Your task to perform on an android device: change notification settings in the gmail app Image 0: 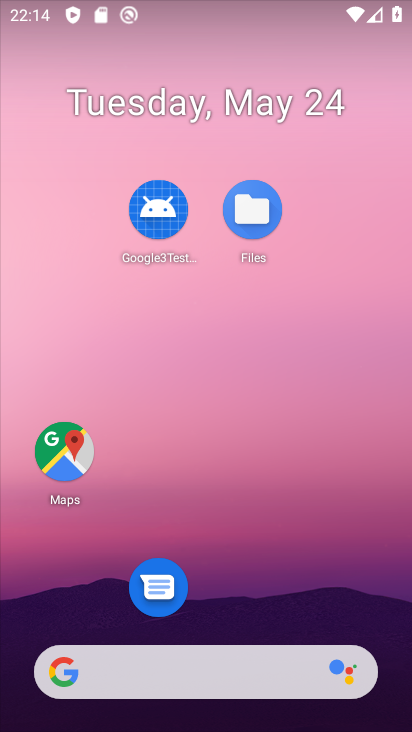
Step 0: drag from (228, 641) to (247, 73)
Your task to perform on an android device: change notification settings in the gmail app Image 1: 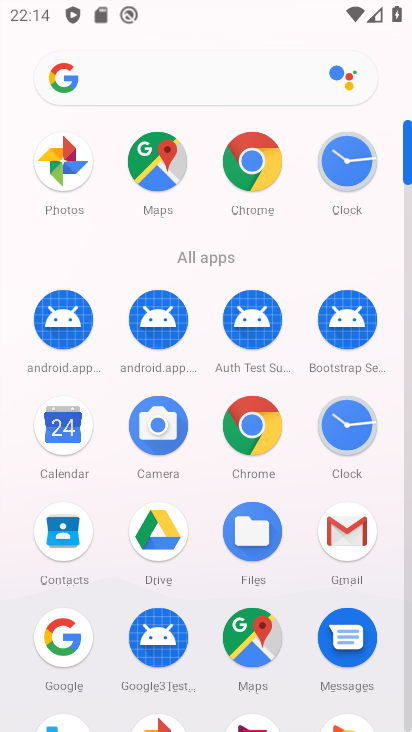
Step 1: click (352, 523)
Your task to perform on an android device: change notification settings in the gmail app Image 2: 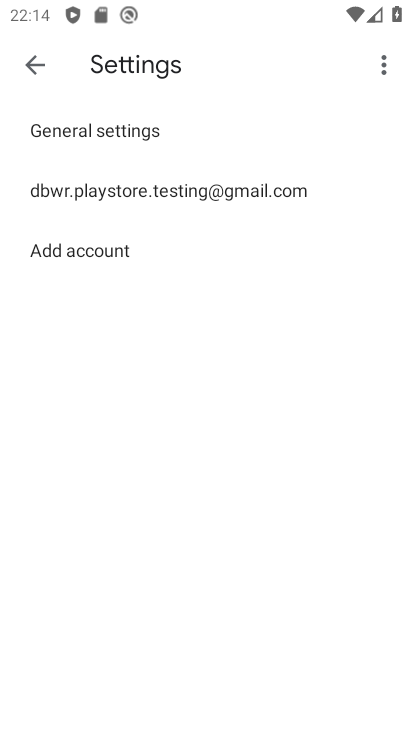
Step 2: click (52, 140)
Your task to perform on an android device: change notification settings in the gmail app Image 3: 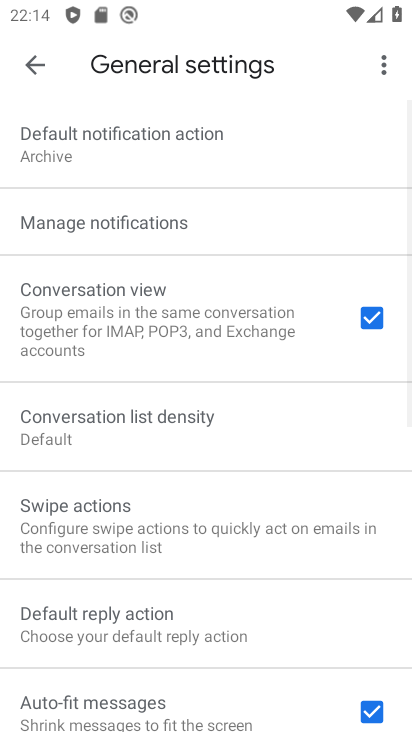
Step 3: click (83, 208)
Your task to perform on an android device: change notification settings in the gmail app Image 4: 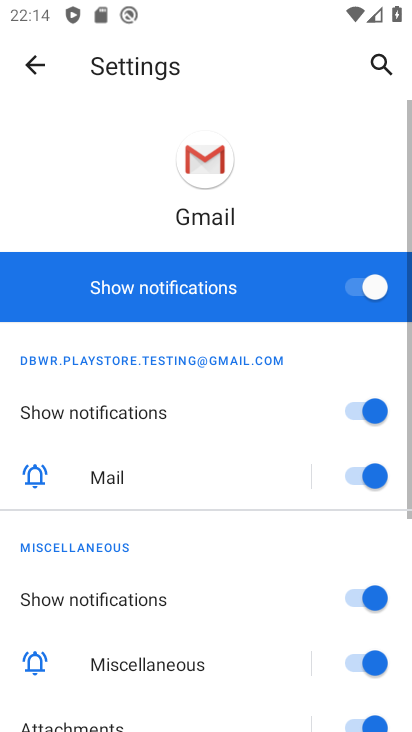
Step 4: click (351, 282)
Your task to perform on an android device: change notification settings in the gmail app Image 5: 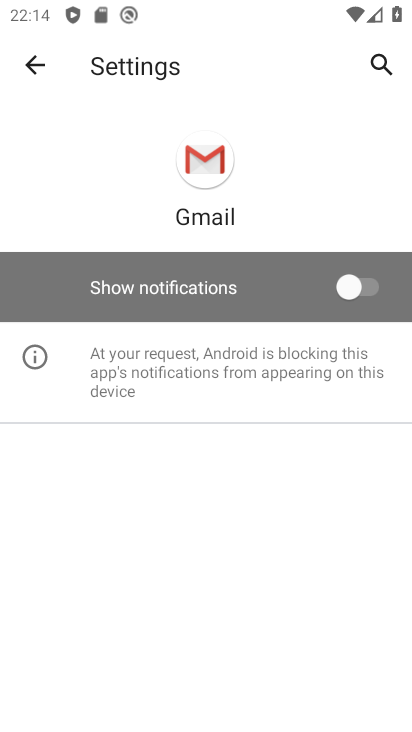
Step 5: task complete